Your task to perform on an android device: Go to battery settings Image 0: 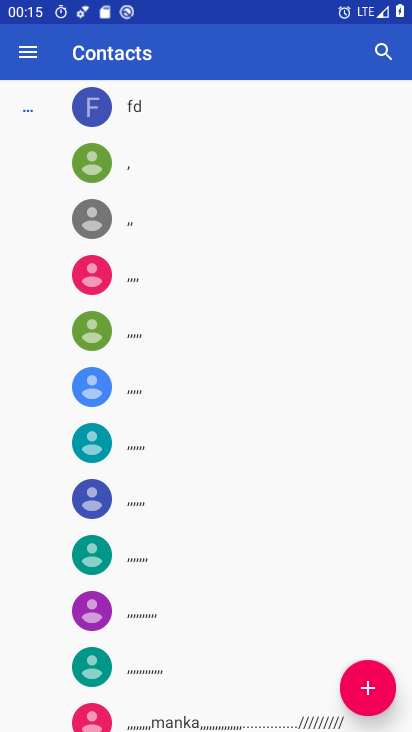
Step 0: press back button
Your task to perform on an android device: Go to battery settings Image 1: 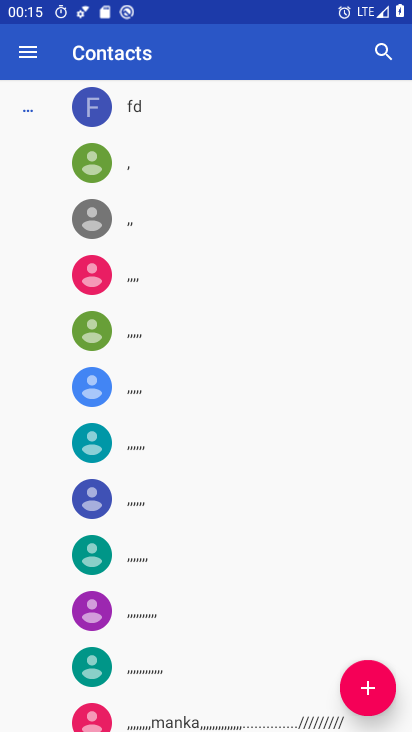
Step 1: press back button
Your task to perform on an android device: Go to battery settings Image 2: 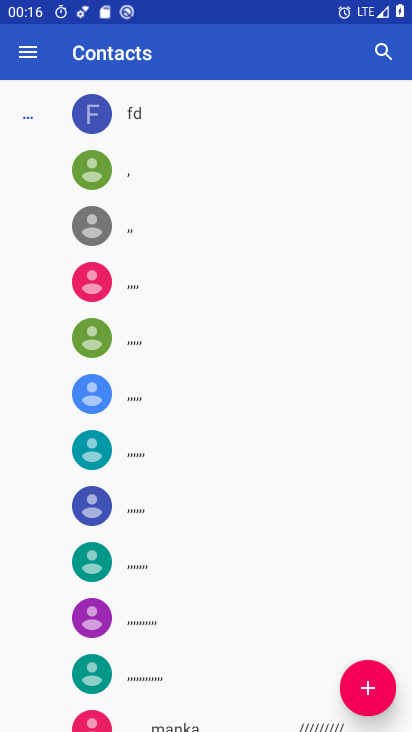
Step 2: press home button
Your task to perform on an android device: Go to battery settings Image 3: 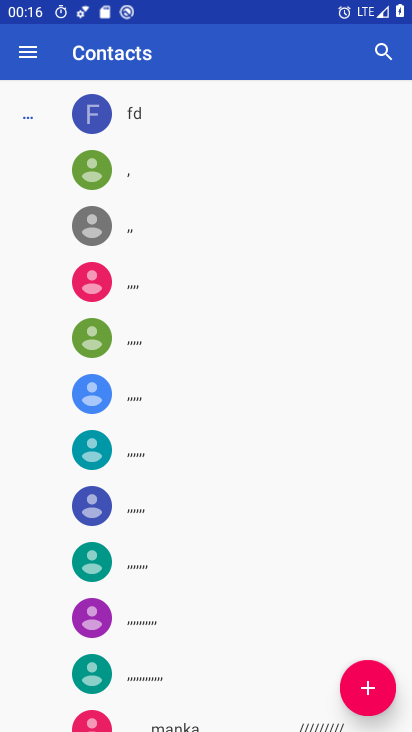
Step 3: press home button
Your task to perform on an android device: Go to battery settings Image 4: 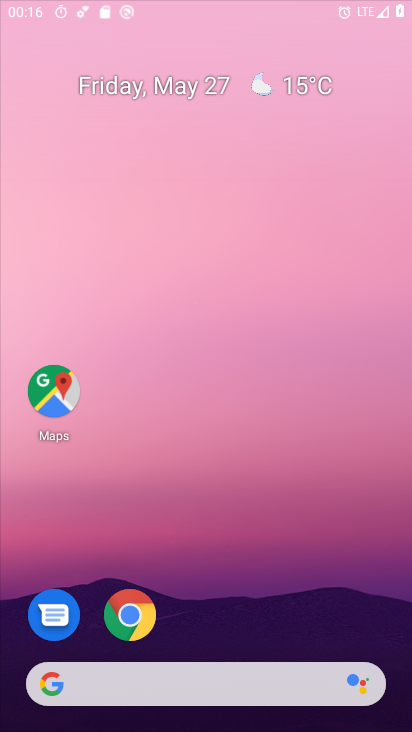
Step 4: press home button
Your task to perform on an android device: Go to battery settings Image 5: 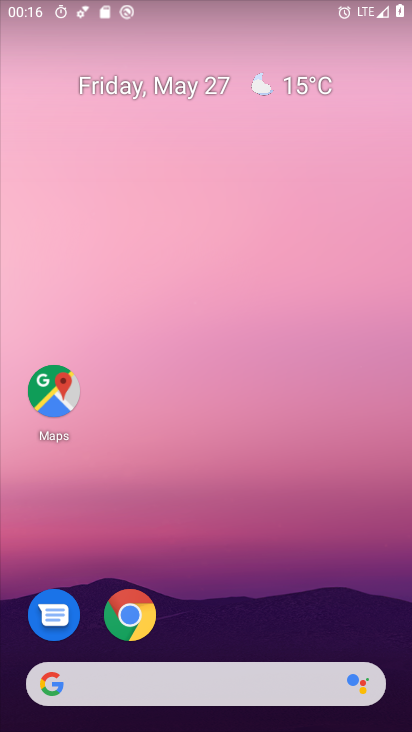
Step 5: drag from (305, 655) to (96, 70)
Your task to perform on an android device: Go to battery settings Image 6: 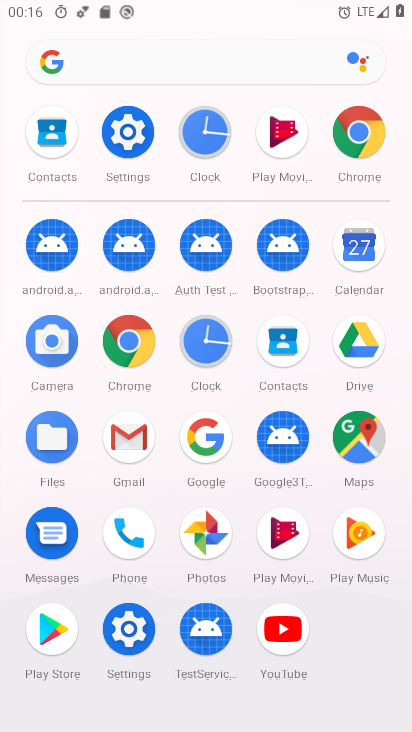
Step 6: click (127, 132)
Your task to perform on an android device: Go to battery settings Image 7: 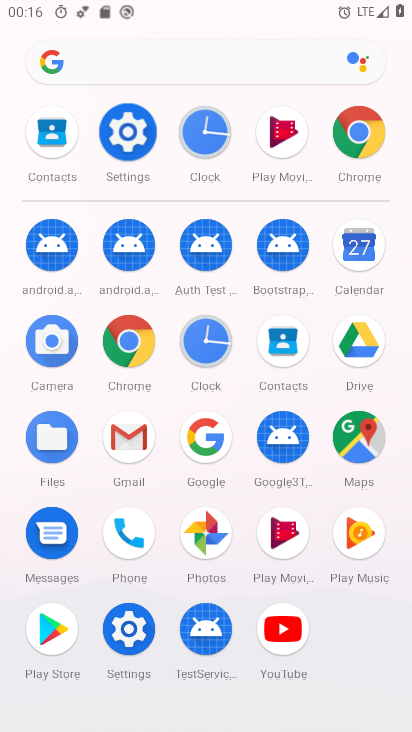
Step 7: click (127, 132)
Your task to perform on an android device: Go to battery settings Image 8: 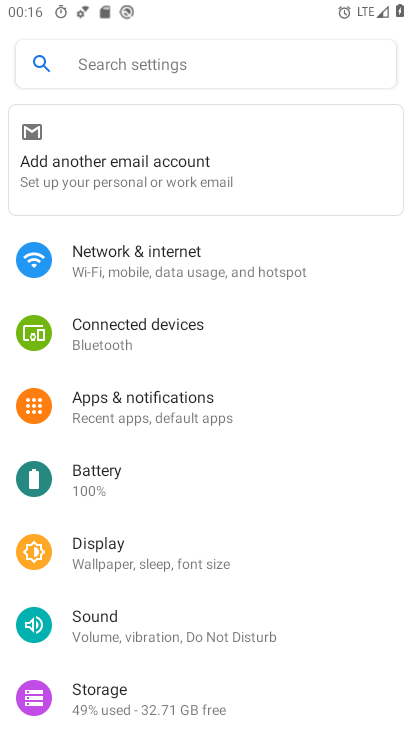
Step 8: click (93, 474)
Your task to perform on an android device: Go to battery settings Image 9: 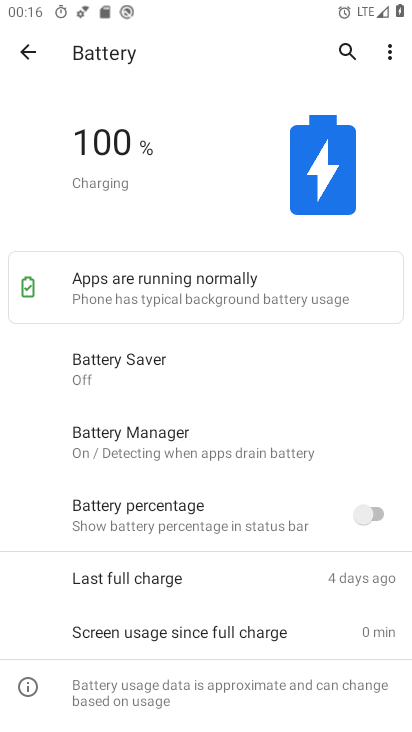
Step 9: task complete